Your task to perform on an android device: Open calendar and show me the second week of next month Image 0: 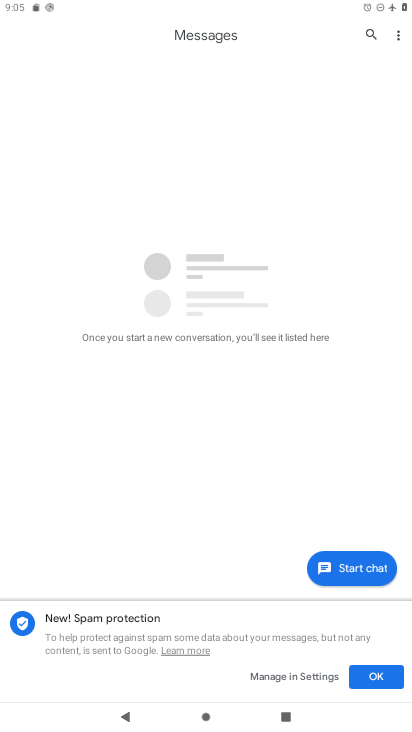
Step 0: press home button
Your task to perform on an android device: Open calendar and show me the second week of next month Image 1: 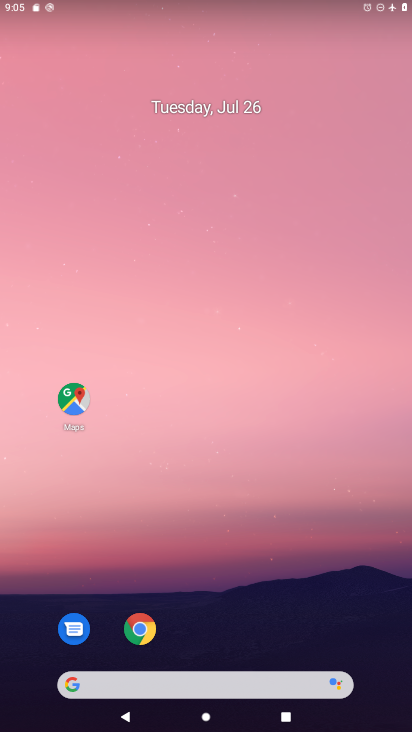
Step 1: drag from (207, 648) to (179, 41)
Your task to perform on an android device: Open calendar and show me the second week of next month Image 2: 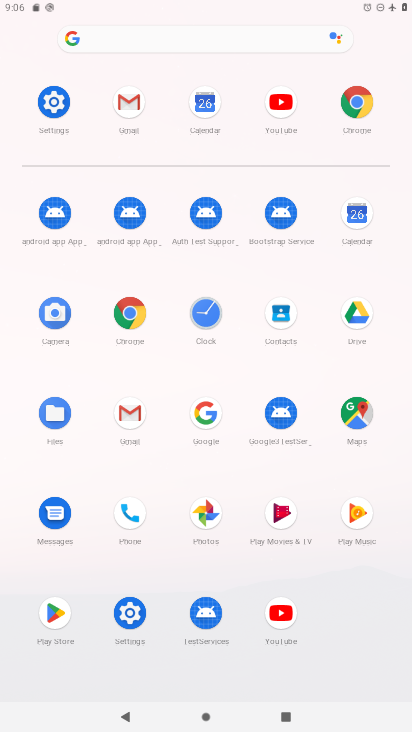
Step 2: click (366, 223)
Your task to perform on an android device: Open calendar and show me the second week of next month Image 3: 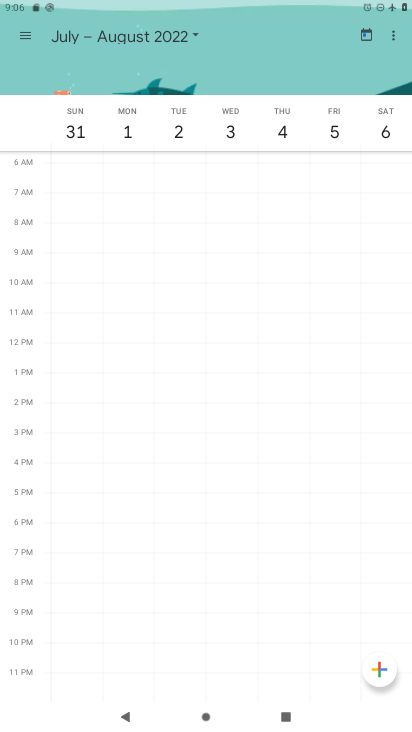
Step 3: task complete